Your task to perform on an android device: set the stopwatch Image 0: 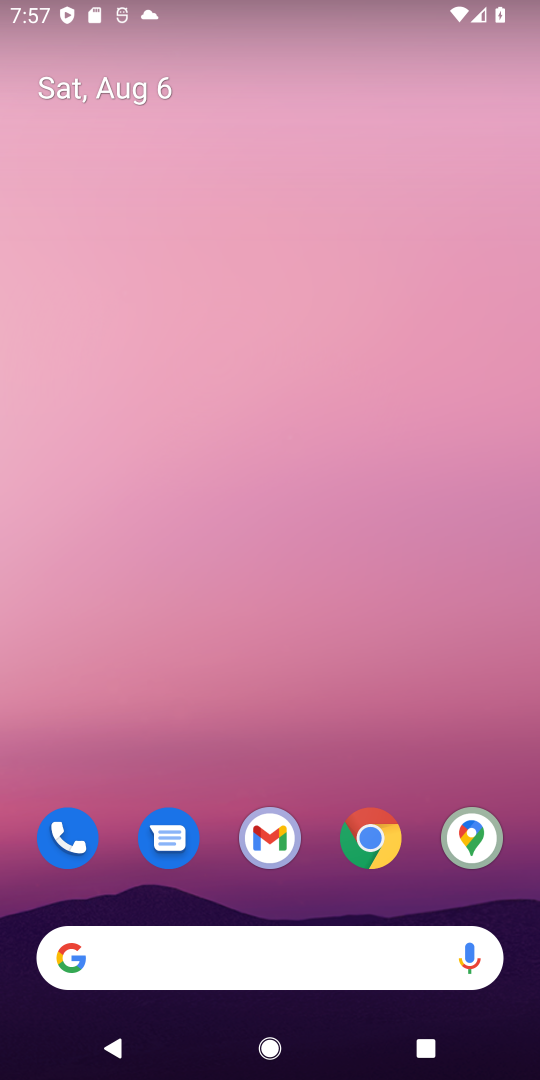
Step 0: drag from (268, 558) to (277, 199)
Your task to perform on an android device: set the stopwatch Image 1: 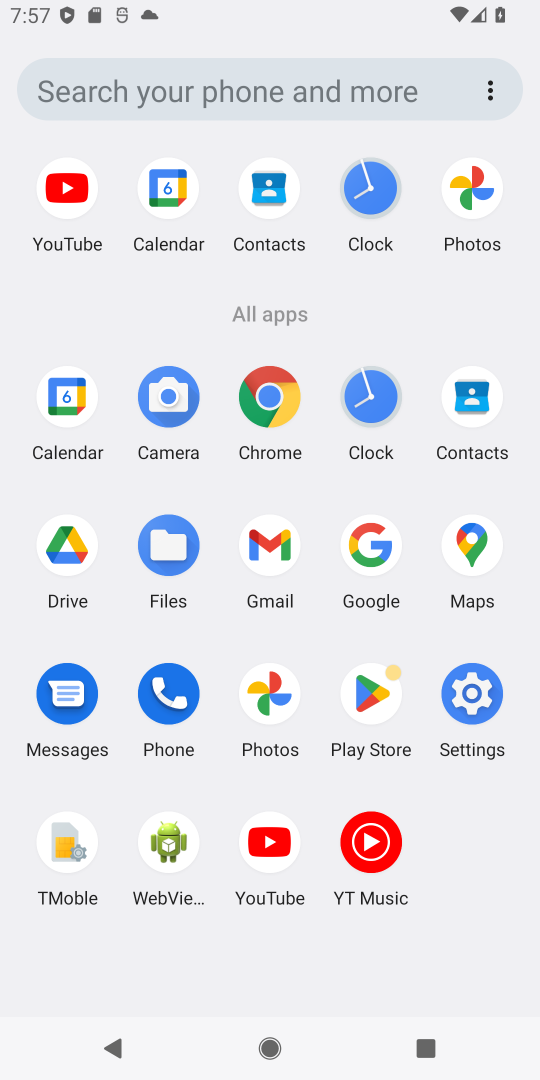
Step 1: click (356, 409)
Your task to perform on an android device: set the stopwatch Image 2: 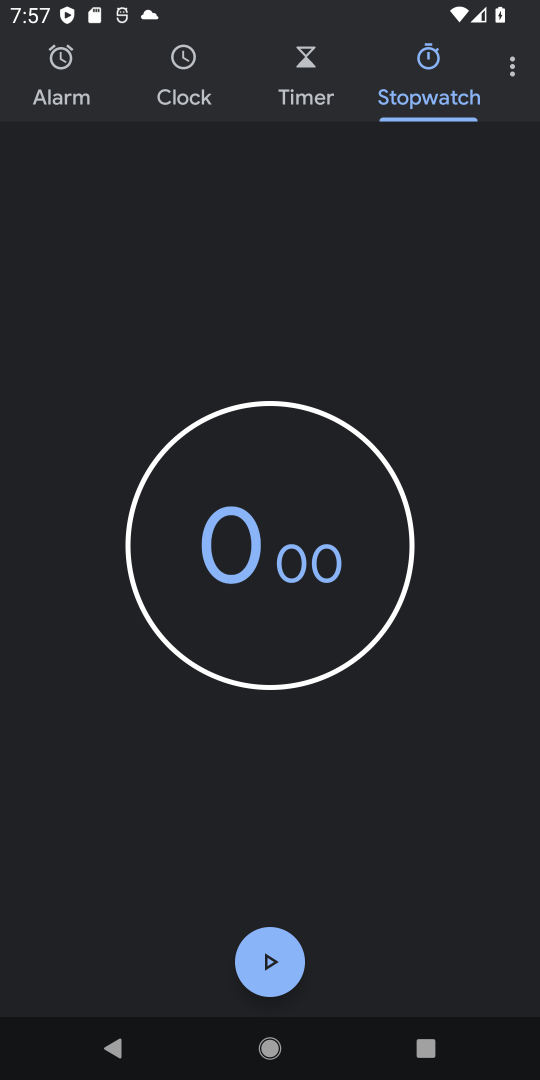
Step 2: click (270, 950)
Your task to perform on an android device: set the stopwatch Image 3: 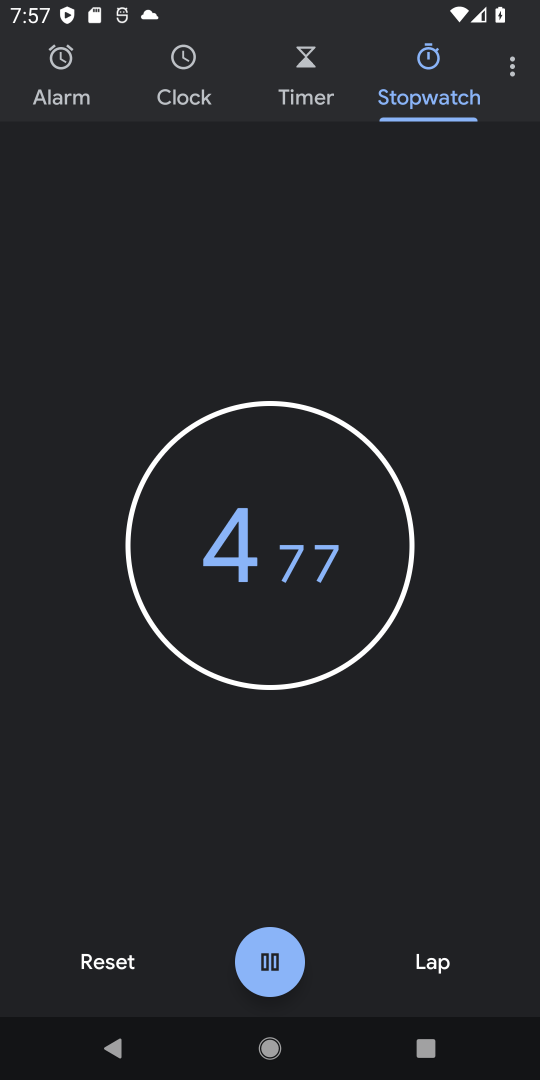
Step 3: click (270, 950)
Your task to perform on an android device: set the stopwatch Image 4: 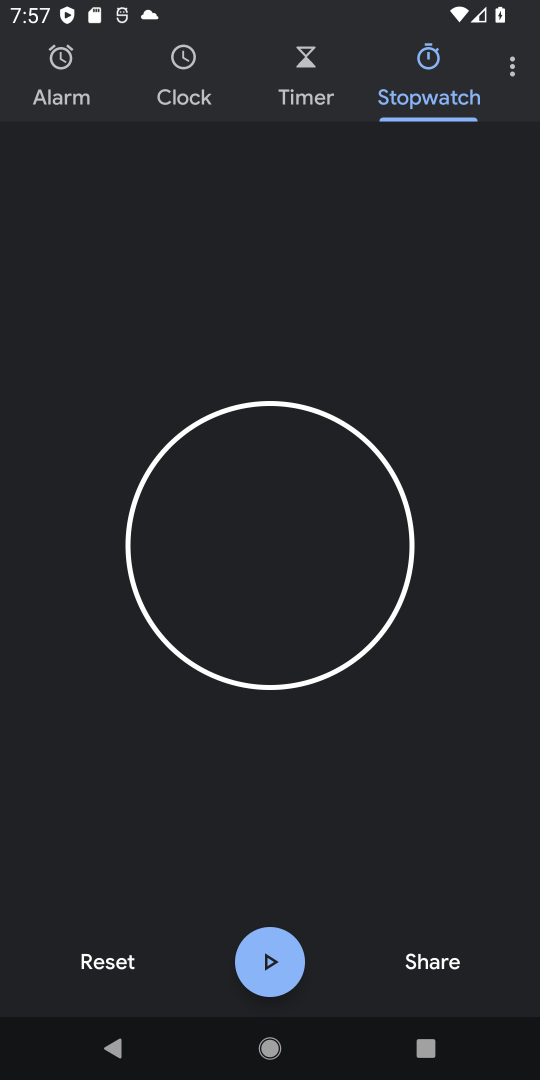
Step 4: task complete